Your task to perform on an android device: Do I have any events tomorrow? Image 0: 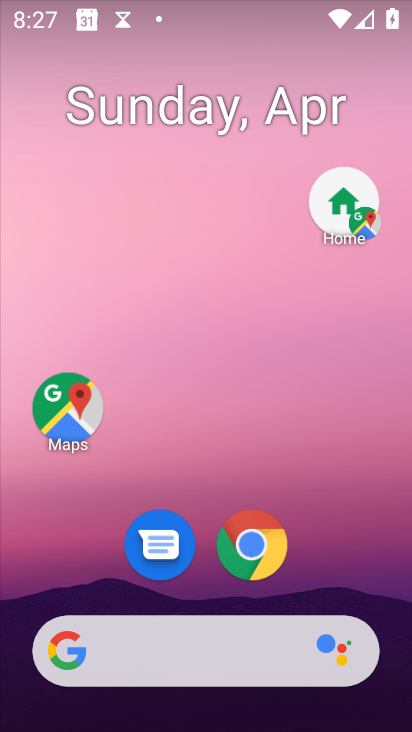
Step 0: drag from (316, 606) to (324, 265)
Your task to perform on an android device: Do I have any events tomorrow? Image 1: 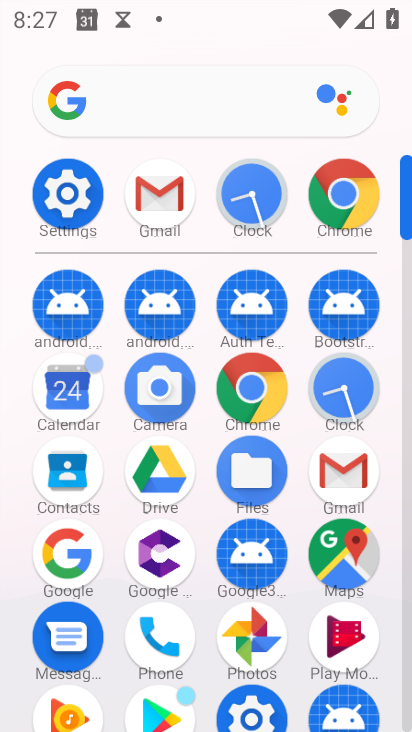
Step 1: click (56, 393)
Your task to perform on an android device: Do I have any events tomorrow? Image 2: 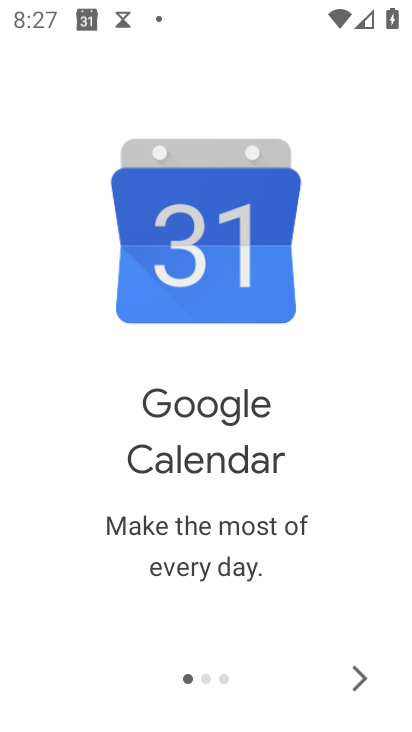
Step 2: click (361, 670)
Your task to perform on an android device: Do I have any events tomorrow? Image 3: 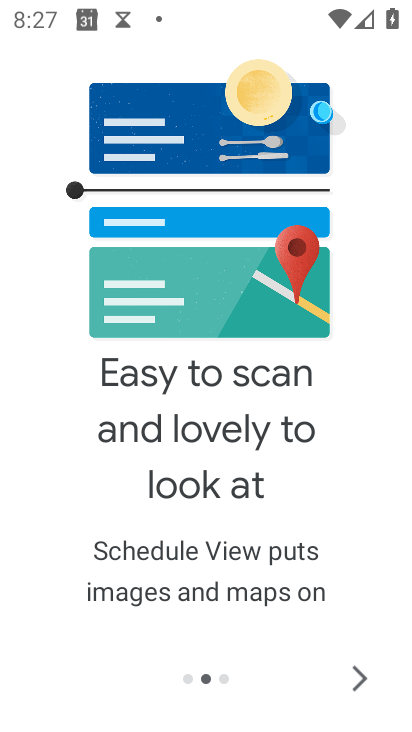
Step 3: click (360, 670)
Your task to perform on an android device: Do I have any events tomorrow? Image 4: 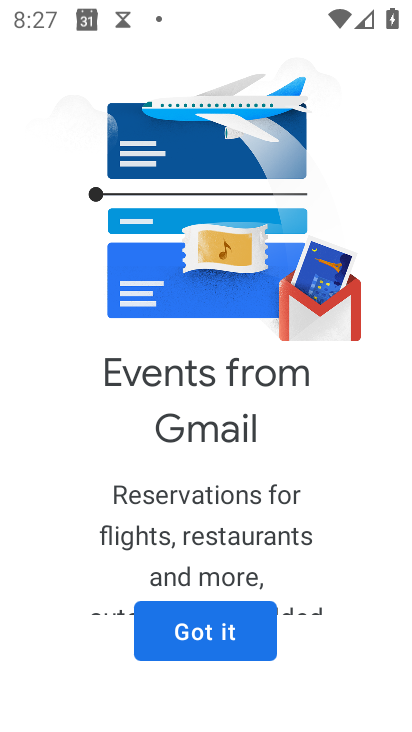
Step 4: click (243, 630)
Your task to perform on an android device: Do I have any events tomorrow? Image 5: 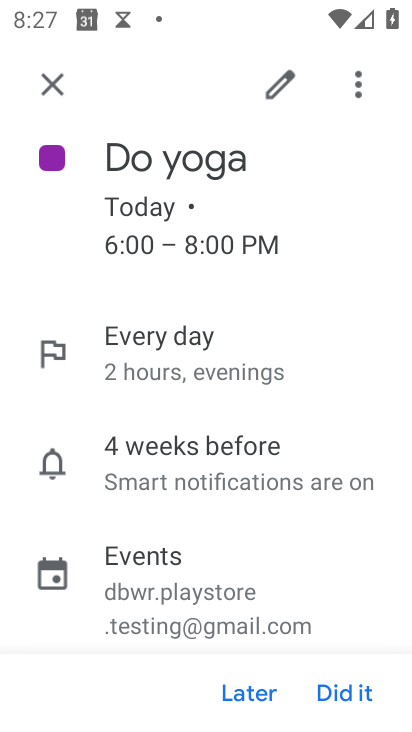
Step 5: click (60, 91)
Your task to perform on an android device: Do I have any events tomorrow? Image 6: 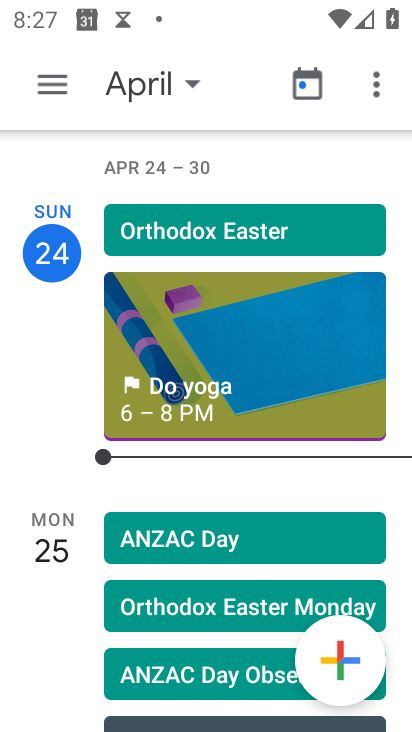
Step 6: click (47, 73)
Your task to perform on an android device: Do I have any events tomorrow? Image 7: 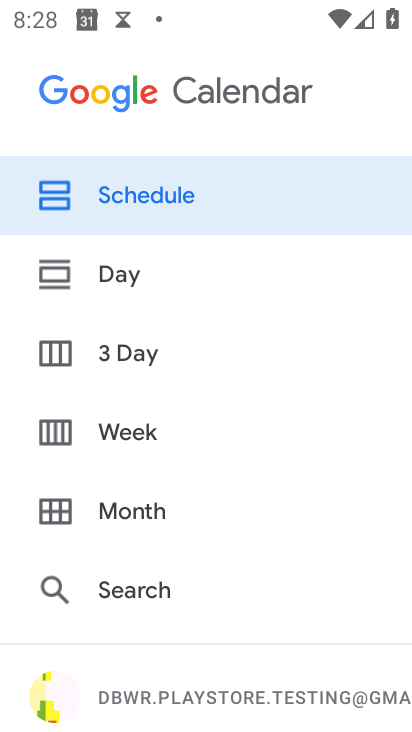
Step 7: click (144, 504)
Your task to perform on an android device: Do I have any events tomorrow? Image 8: 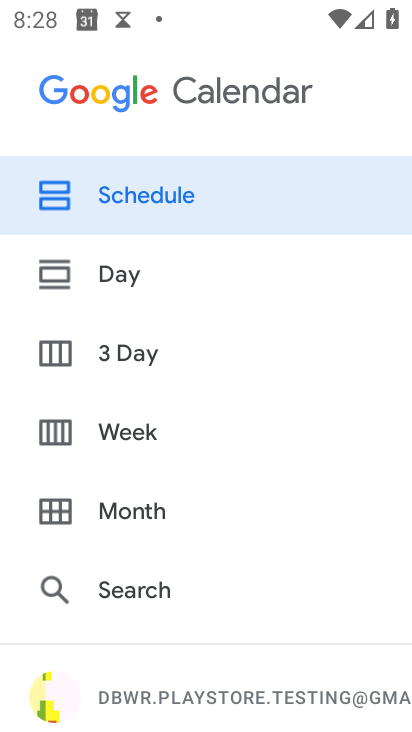
Step 8: click (142, 509)
Your task to perform on an android device: Do I have any events tomorrow? Image 9: 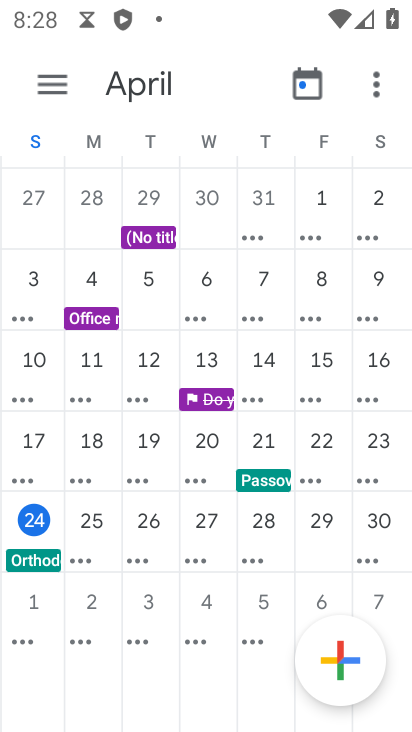
Step 9: click (150, 519)
Your task to perform on an android device: Do I have any events tomorrow? Image 10: 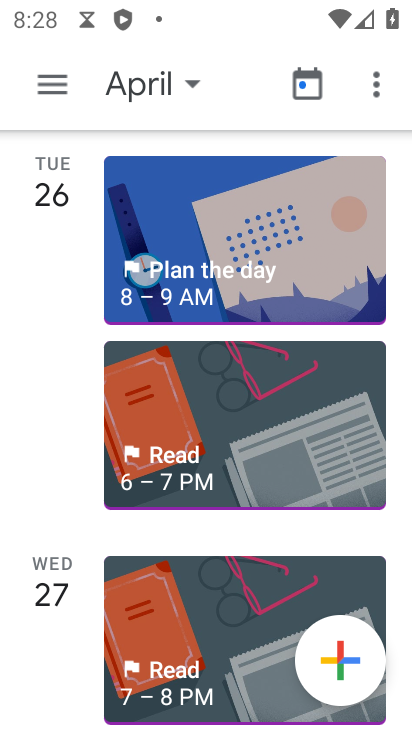
Step 10: click (184, 222)
Your task to perform on an android device: Do I have any events tomorrow? Image 11: 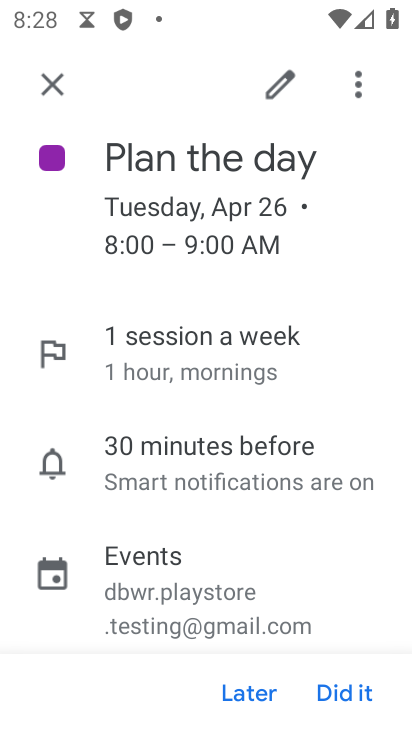
Step 11: task complete